Your task to perform on an android device: visit the assistant section in the google photos Image 0: 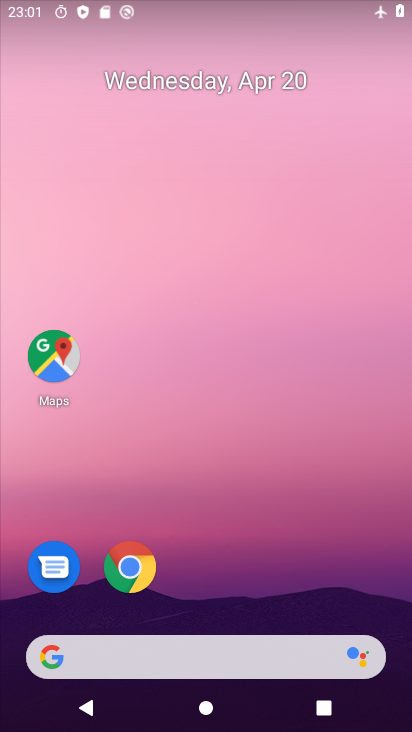
Step 0: drag from (234, 635) to (211, 159)
Your task to perform on an android device: visit the assistant section in the google photos Image 1: 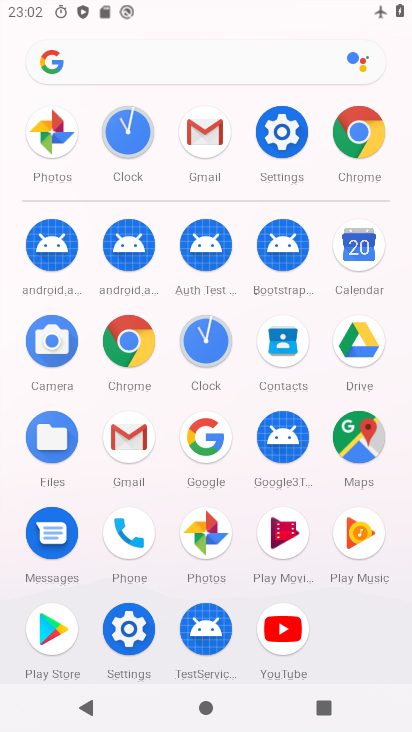
Step 1: click (199, 534)
Your task to perform on an android device: visit the assistant section in the google photos Image 2: 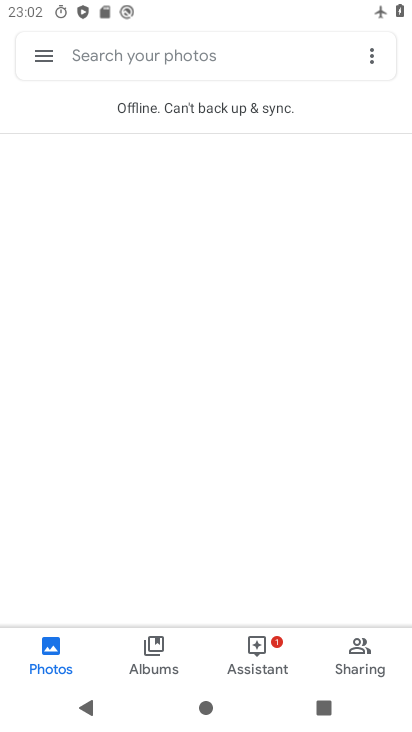
Step 2: click (243, 657)
Your task to perform on an android device: visit the assistant section in the google photos Image 3: 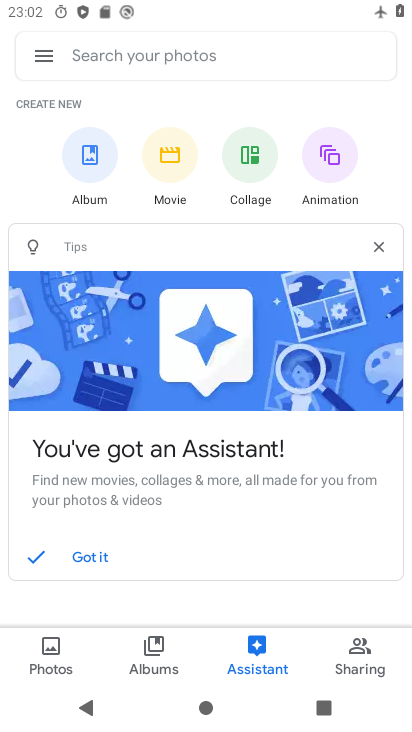
Step 3: task complete